Your task to perform on an android device: toggle notification dots Image 0: 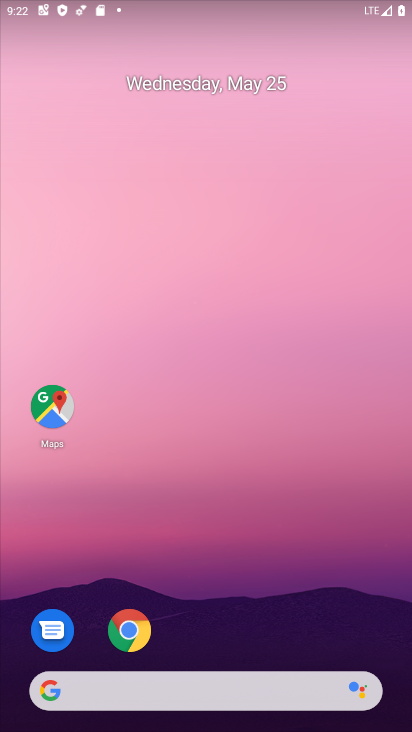
Step 0: drag from (199, 603) to (249, 123)
Your task to perform on an android device: toggle notification dots Image 1: 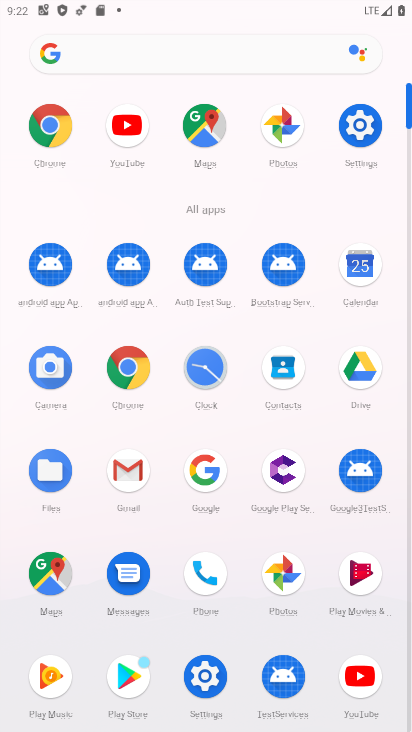
Step 1: click (365, 128)
Your task to perform on an android device: toggle notification dots Image 2: 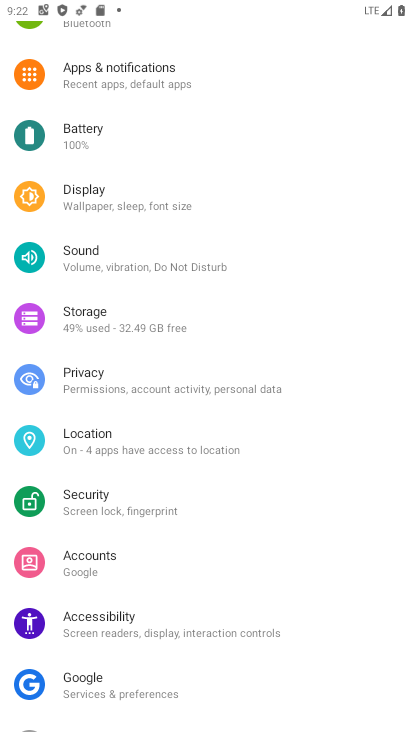
Step 2: click (192, 72)
Your task to perform on an android device: toggle notification dots Image 3: 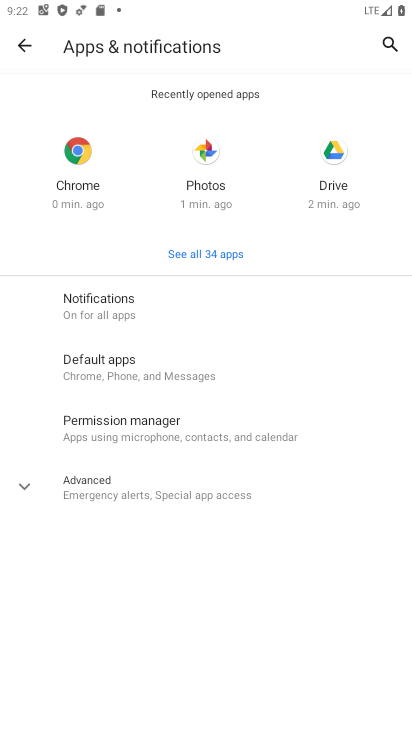
Step 3: click (100, 297)
Your task to perform on an android device: toggle notification dots Image 4: 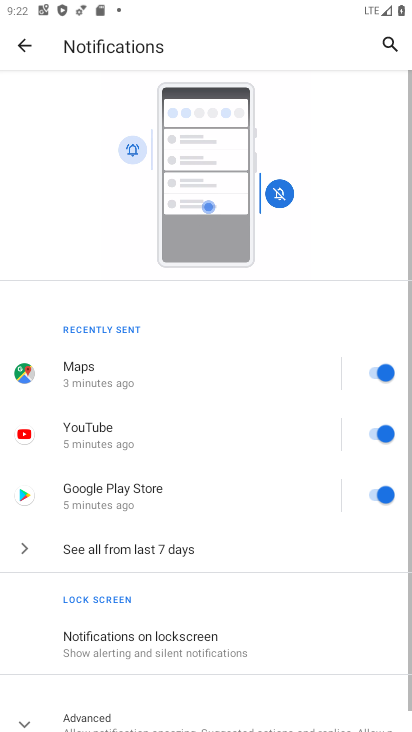
Step 4: drag from (186, 650) to (297, 163)
Your task to perform on an android device: toggle notification dots Image 5: 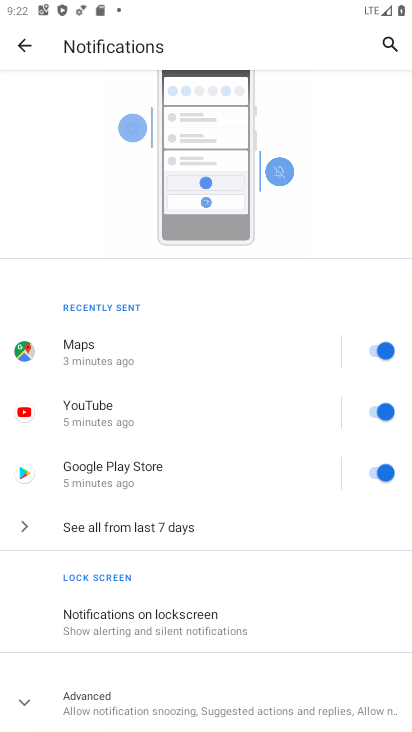
Step 5: click (173, 704)
Your task to perform on an android device: toggle notification dots Image 6: 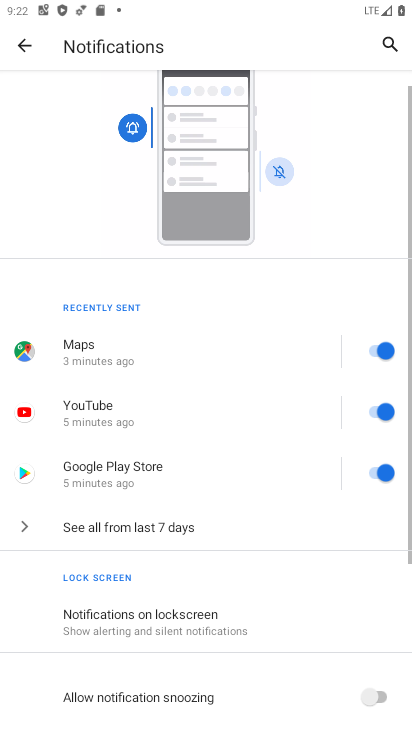
Step 6: drag from (183, 698) to (272, 164)
Your task to perform on an android device: toggle notification dots Image 7: 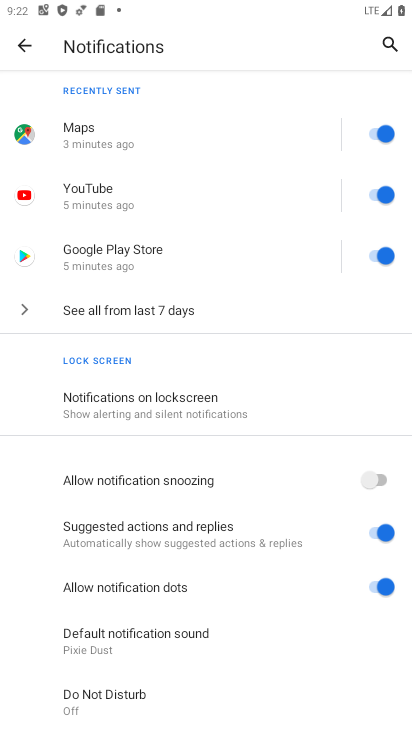
Step 7: click (382, 588)
Your task to perform on an android device: toggle notification dots Image 8: 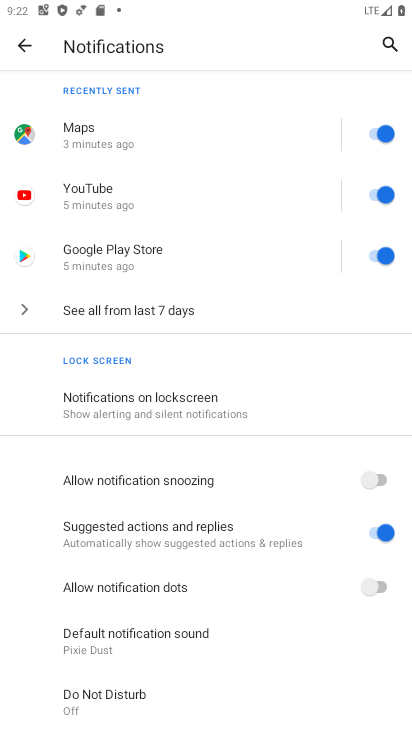
Step 8: task complete